Your task to perform on an android device: turn on the 12-hour format for clock Image 0: 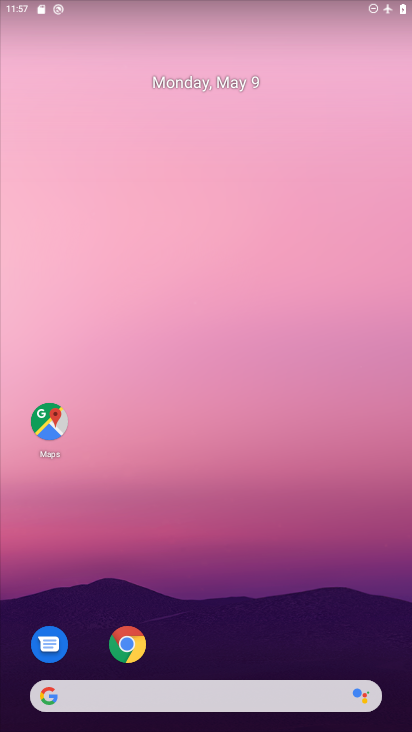
Step 0: click (225, 137)
Your task to perform on an android device: turn on the 12-hour format for clock Image 1: 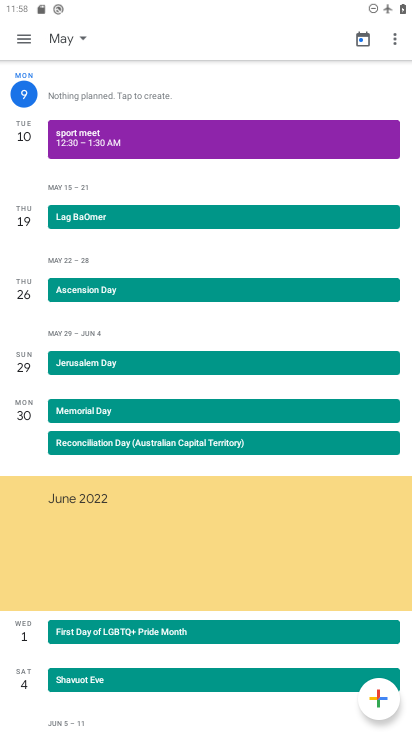
Step 1: press home button
Your task to perform on an android device: turn on the 12-hour format for clock Image 2: 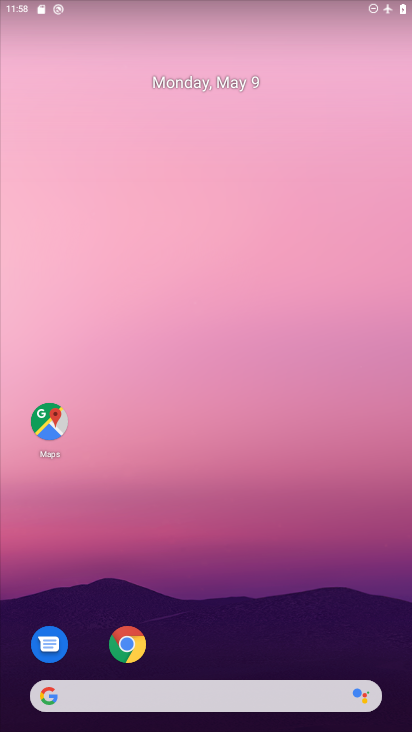
Step 2: drag from (216, 648) to (216, 206)
Your task to perform on an android device: turn on the 12-hour format for clock Image 3: 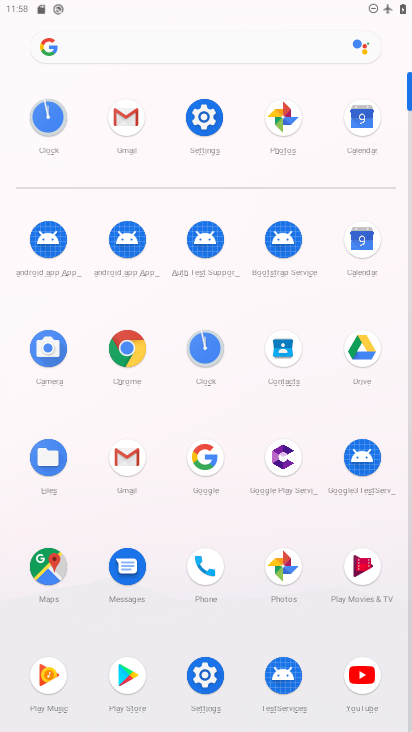
Step 3: click (55, 126)
Your task to perform on an android device: turn on the 12-hour format for clock Image 4: 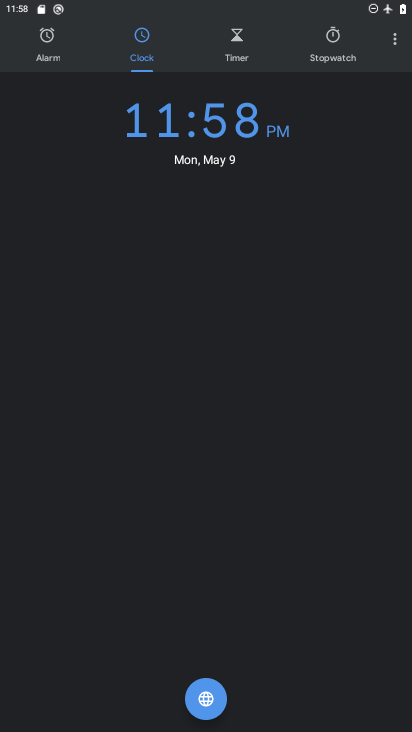
Step 4: click (391, 42)
Your task to perform on an android device: turn on the 12-hour format for clock Image 5: 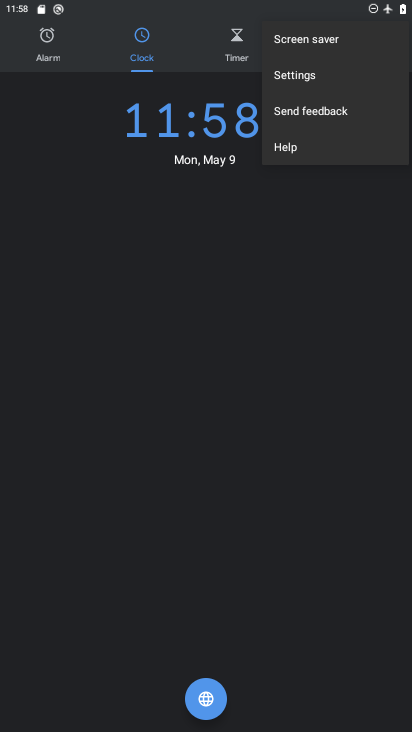
Step 5: click (339, 82)
Your task to perform on an android device: turn on the 12-hour format for clock Image 6: 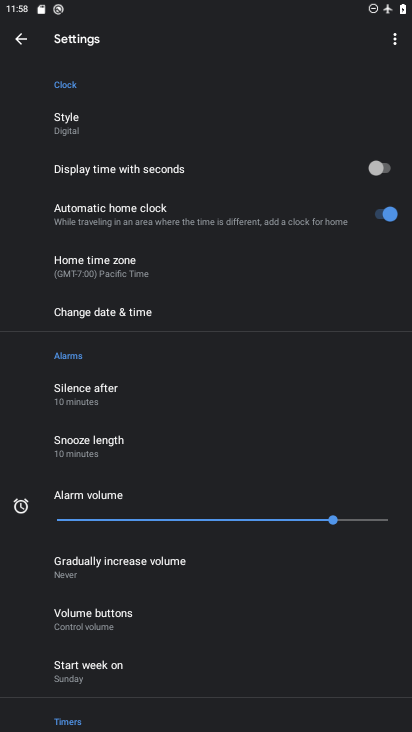
Step 6: click (132, 308)
Your task to perform on an android device: turn on the 12-hour format for clock Image 7: 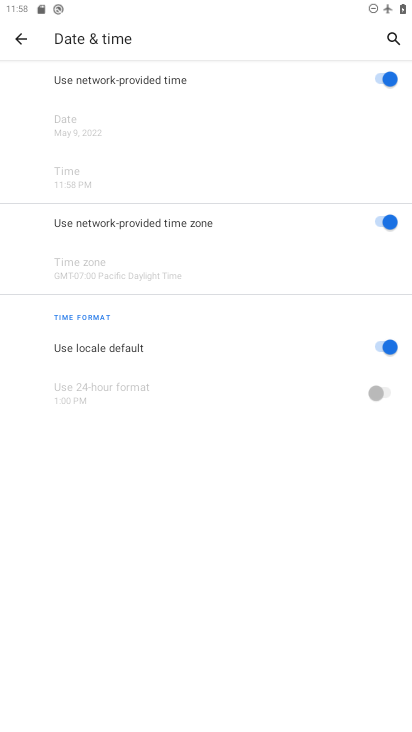
Step 7: task complete